Your task to perform on an android device: open app "eBay: The shopping marketplace" (install if not already installed) Image 0: 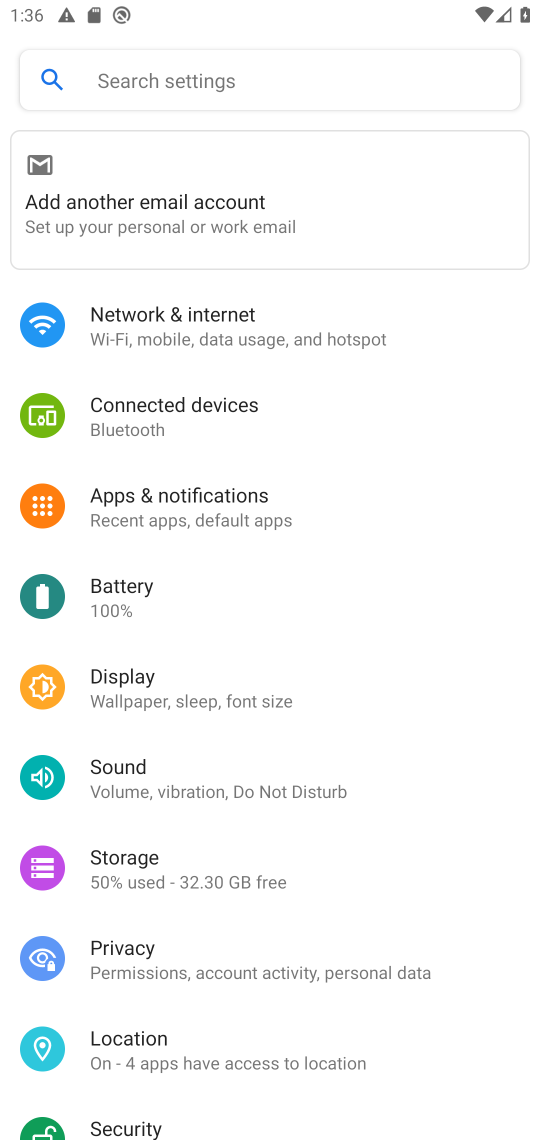
Step 0: task complete